Your task to perform on an android device: Open accessibility settings Image 0: 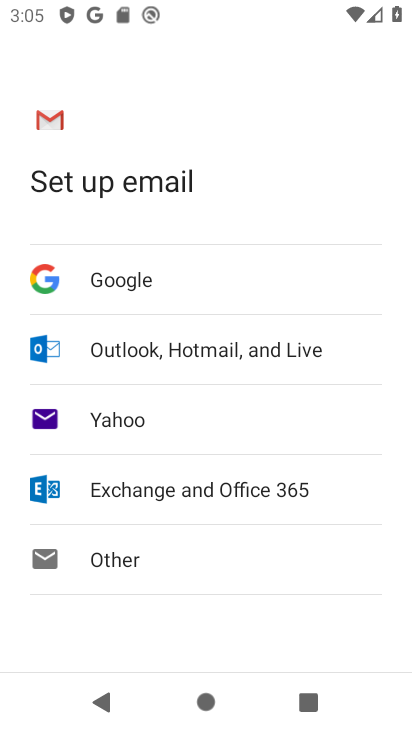
Step 0: press home button
Your task to perform on an android device: Open accessibility settings Image 1: 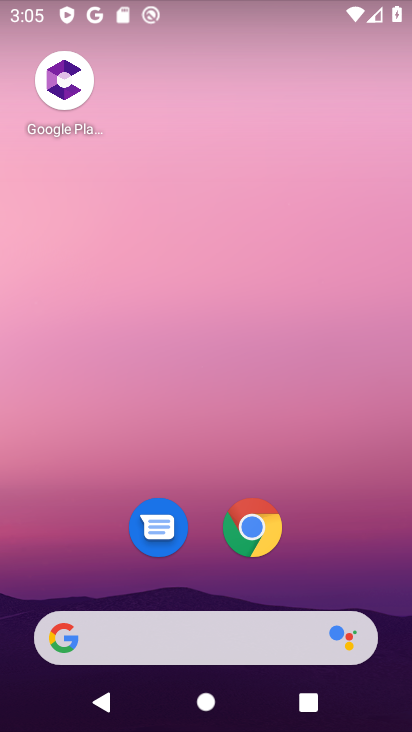
Step 1: drag from (325, 469) to (261, 196)
Your task to perform on an android device: Open accessibility settings Image 2: 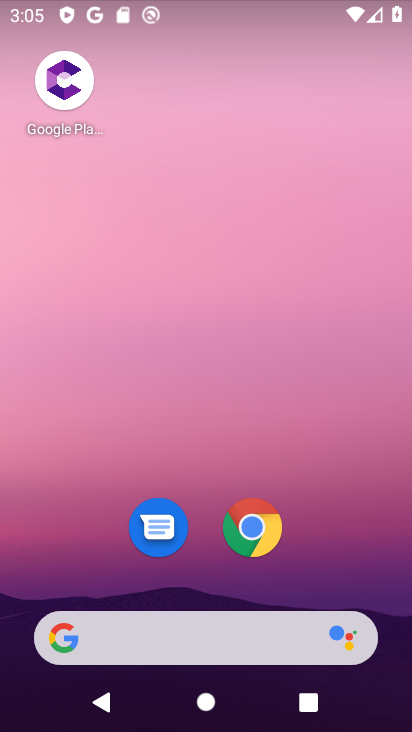
Step 2: drag from (266, 363) to (215, 129)
Your task to perform on an android device: Open accessibility settings Image 3: 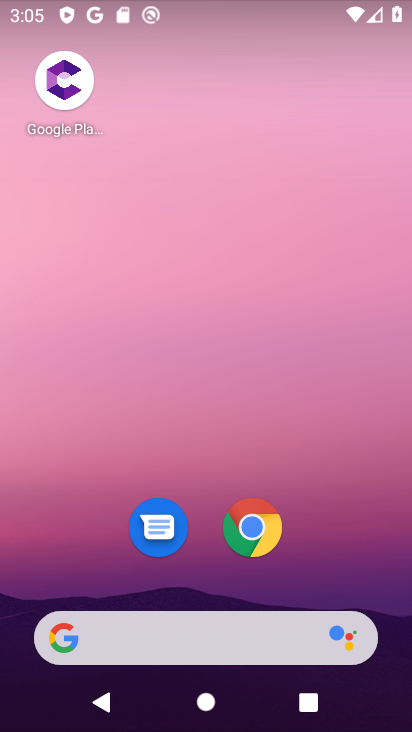
Step 3: drag from (201, 562) to (191, 215)
Your task to perform on an android device: Open accessibility settings Image 4: 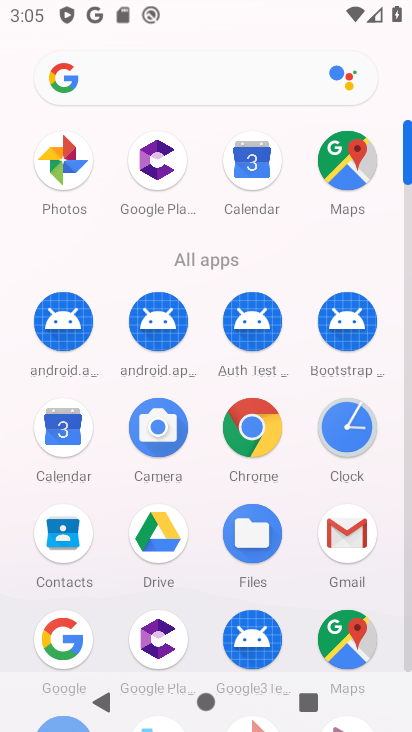
Step 4: drag from (242, 597) to (215, 252)
Your task to perform on an android device: Open accessibility settings Image 5: 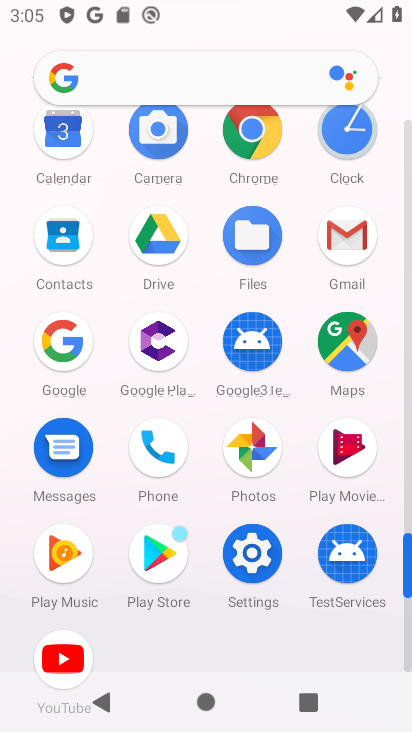
Step 5: click (231, 552)
Your task to perform on an android device: Open accessibility settings Image 6: 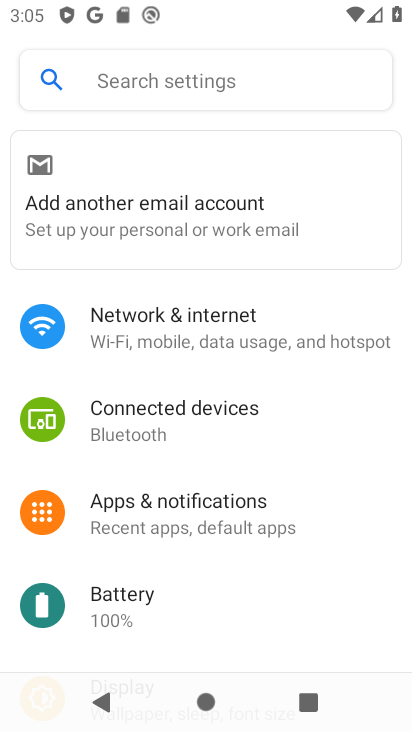
Step 6: drag from (226, 512) to (180, 238)
Your task to perform on an android device: Open accessibility settings Image 7: 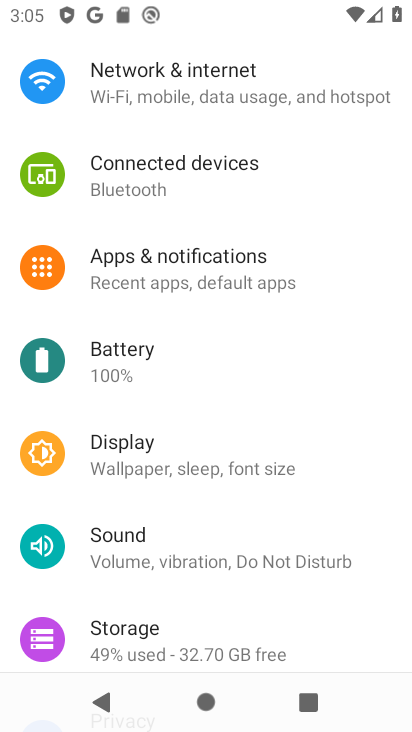
Step 7: drag from (192, 554) to (184, 213)
Your task to perform on an android device: Open accessibility settings Image 8: 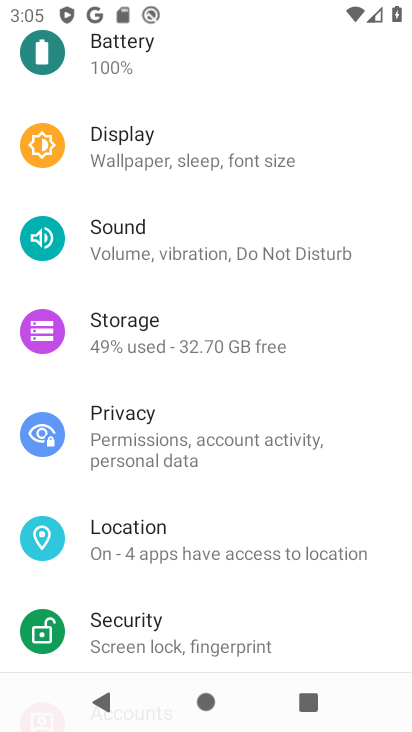
Step 8: drag from (162, 599) to (191, 267)
Your task to perform on an android device: Open accessibility settings Image 9: 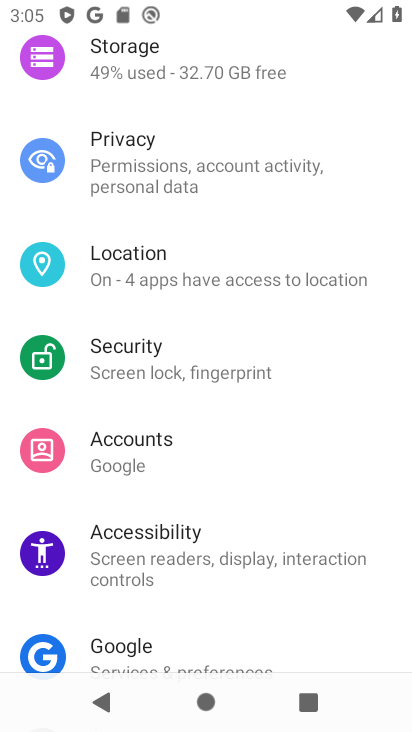
Step 9: click (167, 543)
Your task to perform on an android device: Open accessibility settings Image 10: 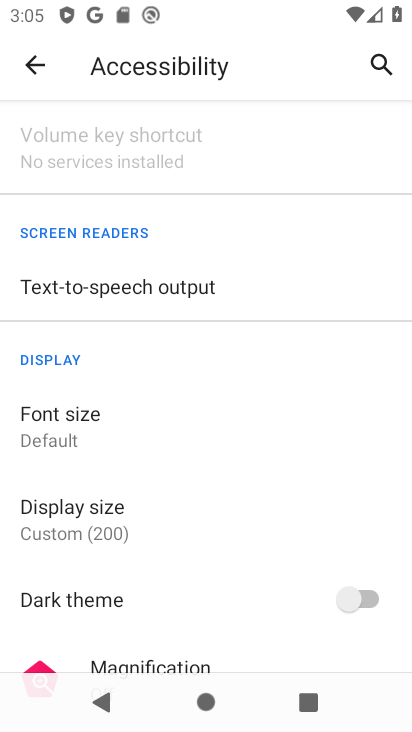
Step 10: task complete